Your task to perform on an android device: change alarm snooze length Image 0: 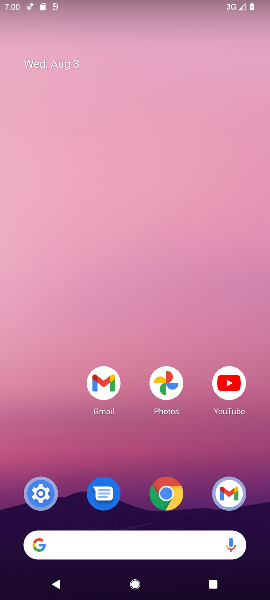
Step 0: drag from (109, 516) to (172, 157)
Your task to perform on an android device: change alarm snooze length Image 1: 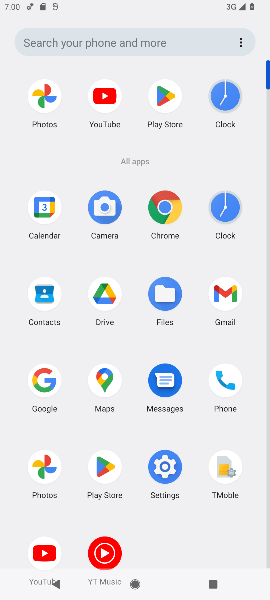
Step 1: click (232, 197)
Your task to perform on an android device: change alarm snooze length Image 2: 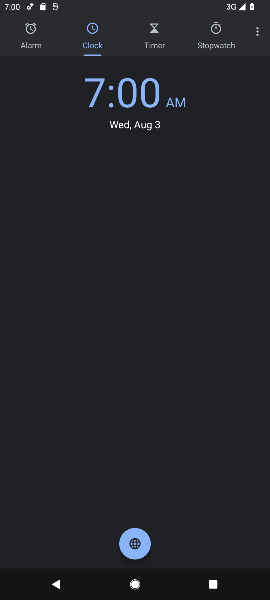
Step 2: click (265, 34)
Your task to perform on an android device: change alarm snooze length Image 3: 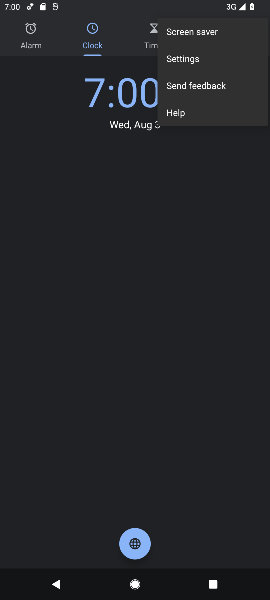
Step 3: click (202, 61)
Your task to perform on an android device: change alarm snooze length Image 4: 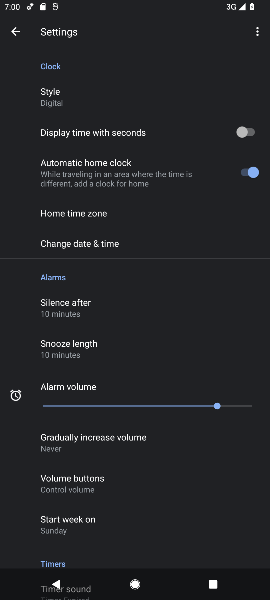
Step 4: click (81, 346)
Your task to perform on an android device: change alarm snooze length Image 5: 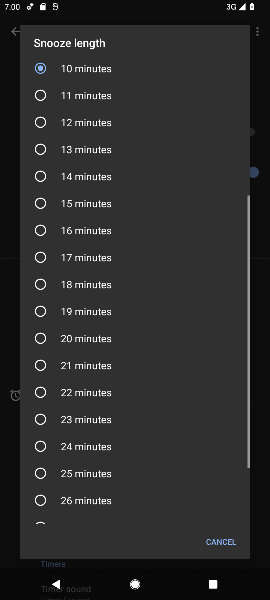
Step 5: click (71, 412)
Your task to perform on an android device: change alarm snooze length Image 6: 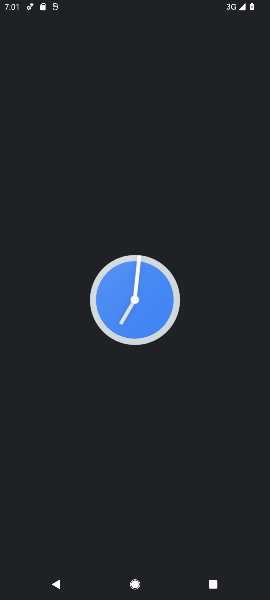
Step 6: click (107, 246)
Your task to perform on an android device: change alarm snooze length Image 7: 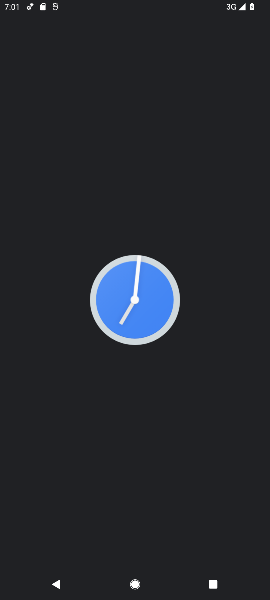
Step 7: click (107, 246)
Your task to perform on an android device: change alarm snooze length Image 8: 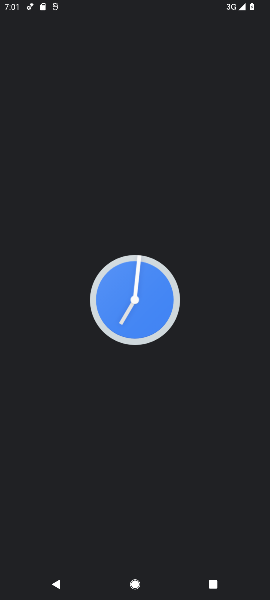
Step 8: click (107, 246)
Your task to perform on an android device: change alarm snooze length Image 9: 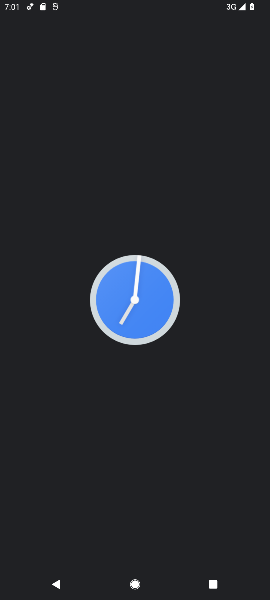
Step 9: click (107, 246)
Your task to perform on an android device: change alarm snooze length Image 10: 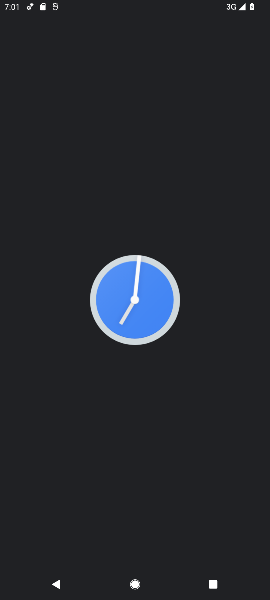
Step 10: click (107, 246)
Your task to perform on an android device: change alarm snooze length Image 11: 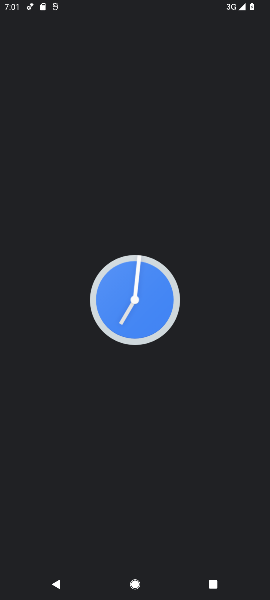
Step 11: task complete